Your task to perform on an android device: change the clock display to analog Image 0: 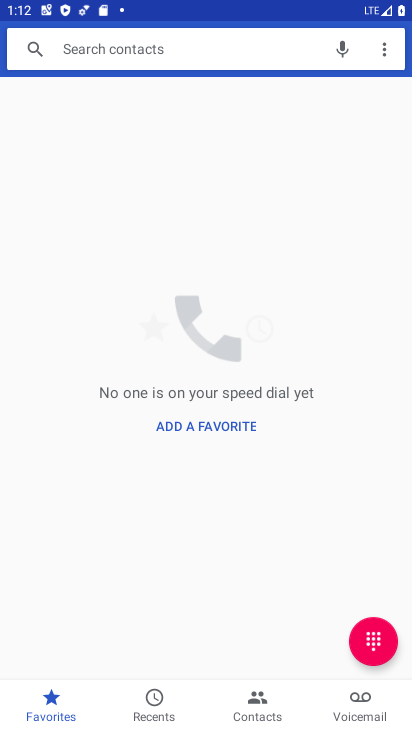
Step 0: press home button
Your task to perform on an android device: change the clock display to analog Image 1: 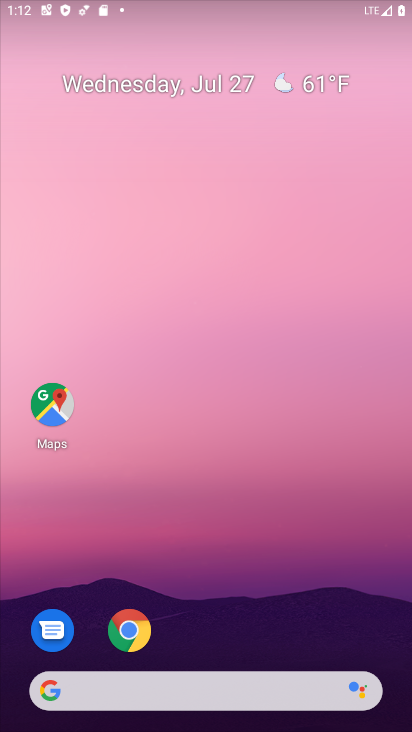
Step 1: drag from (177, 668) to (215, 275)
Your task to perform on an android device: change the clock display to analog Image 2: 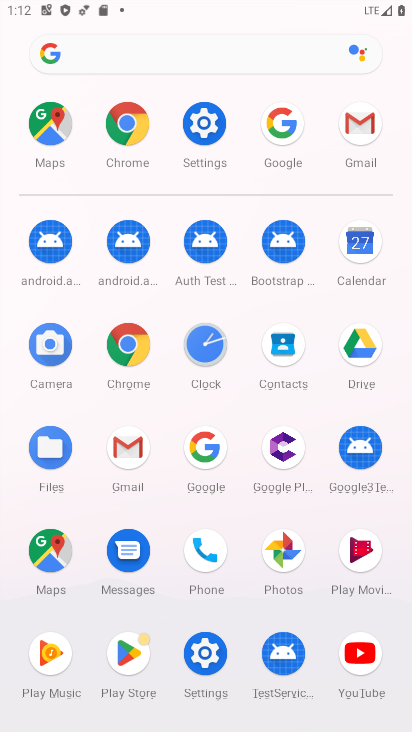
Step 2: click (201, 340)
Your task to perform on an android device: change the clock display to analog Image 3: 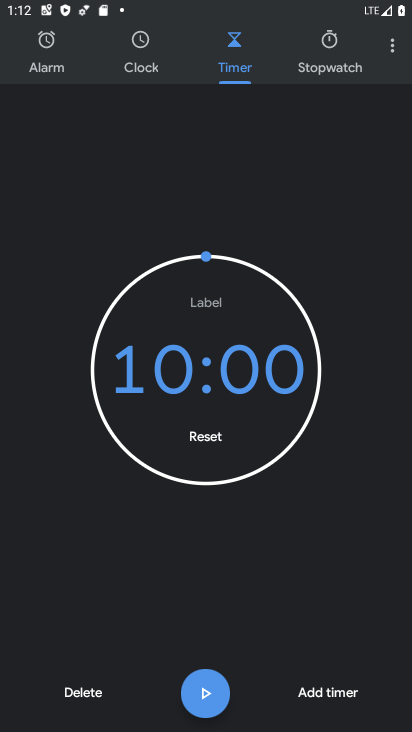
Step 3: click (392, 48)
Your task to perform on an android device: change the clock display to analog Image 4: 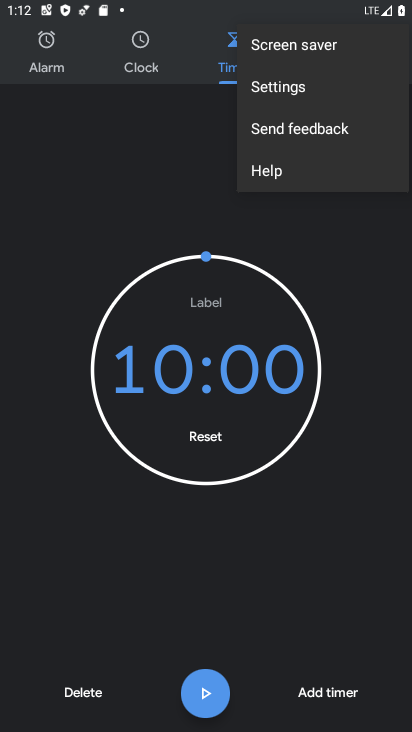
Step 4: click (284, 88)
Your task to perform on an android device: change the clock display to analog Image 5: 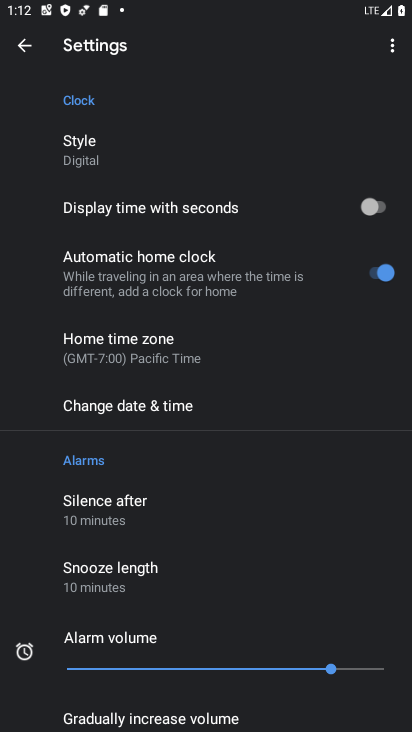
Step 5: click (80, 159)
Your task to perform on an android device: change the clock display to analog Image 6: 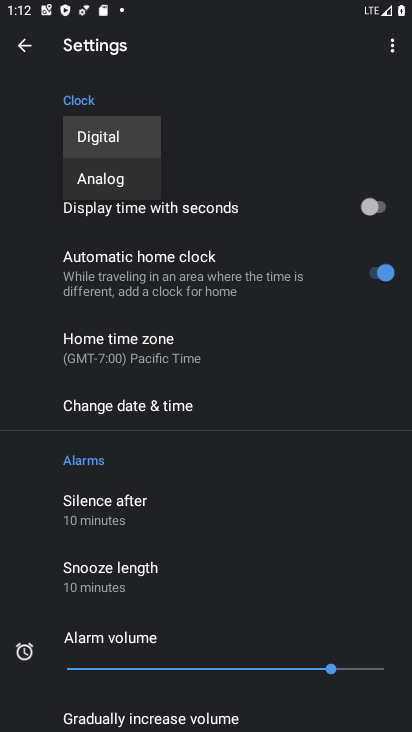
Step 6: click (104, 176)
Your task to perform on an android device: change the clock display to analog Image 7: 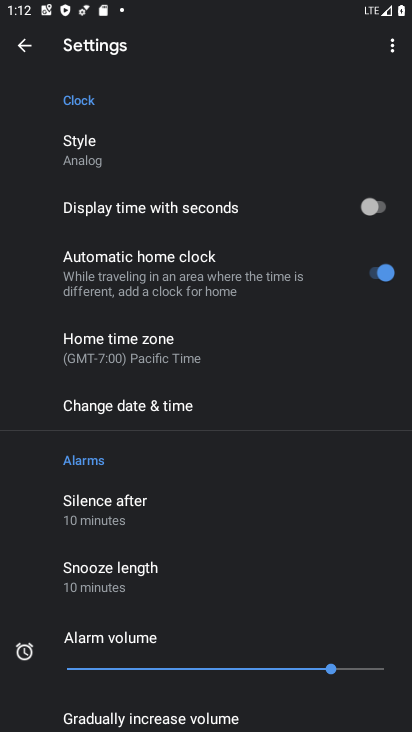
Step 7: task complete